Your task to perform on an android device: create a new album in the google photos Image 0: 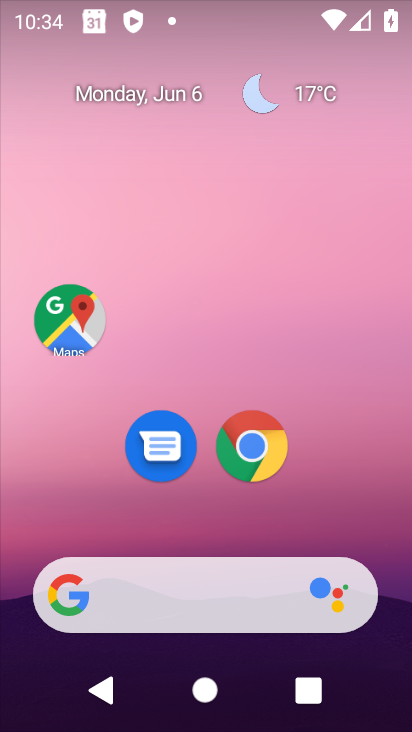
Step 0: drag from (353, 514) to (230, 6)
Your task to perform on an android device: create a new album in the google photos Image 1: 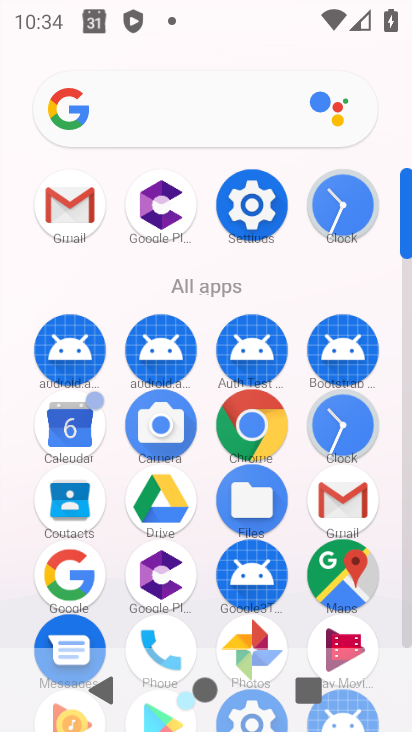
Step 1: drag from (10, 554) to (19, 201)
Your task to perform on an android device: create a new album in the google photos Image 2: 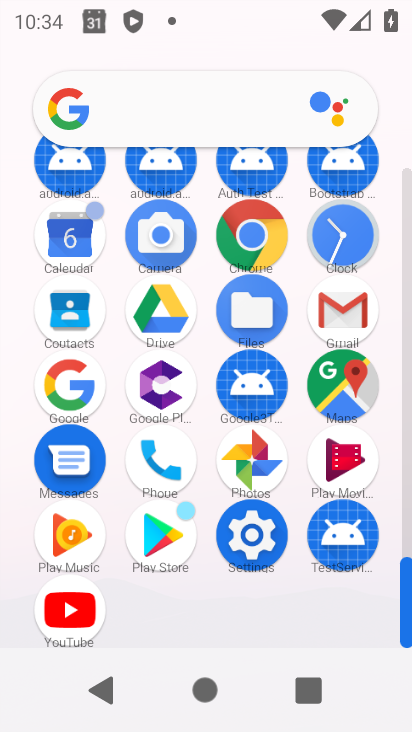
Step 2: click (245, 454)
Your task to perform on an android device: create a new album in the google photos Image 3: 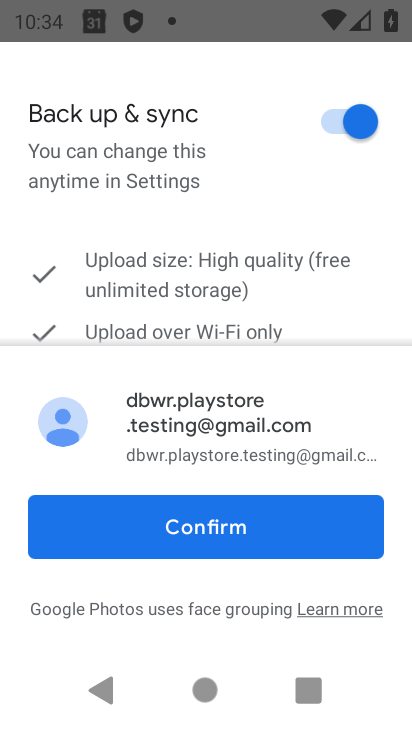
Step 3: click (219, 525)
Your task to perform on an android device: create a new album in the google photos Image 4: 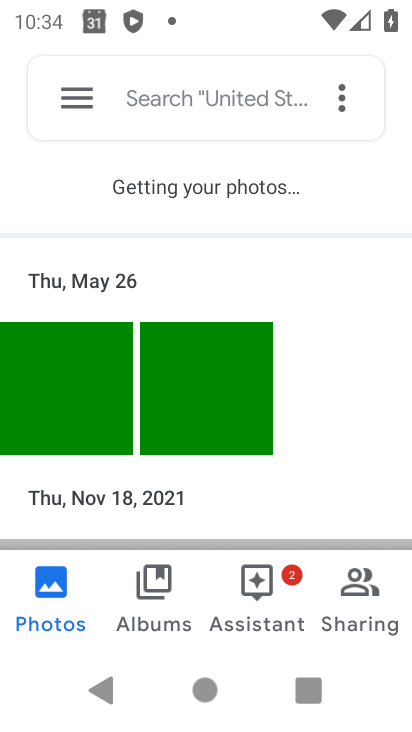
Step 4: drag from (314, 485) to (335, 188)
Your task to perform on an android device: create a new album in the google photos Image 5: 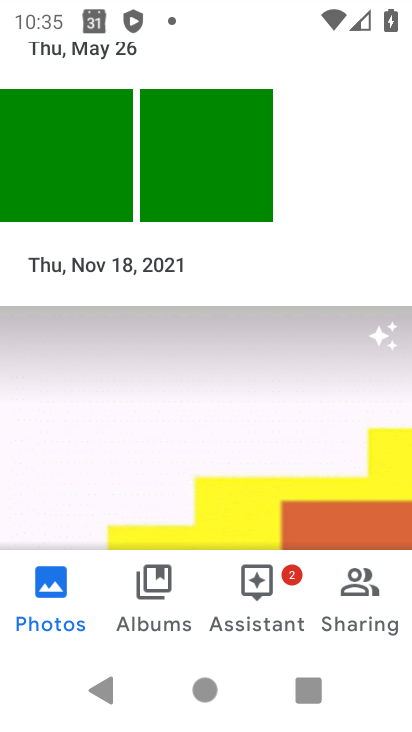
Step 5: click (204, 418)
Your task to perform on an android device: create a new album in the google photos Image 6: 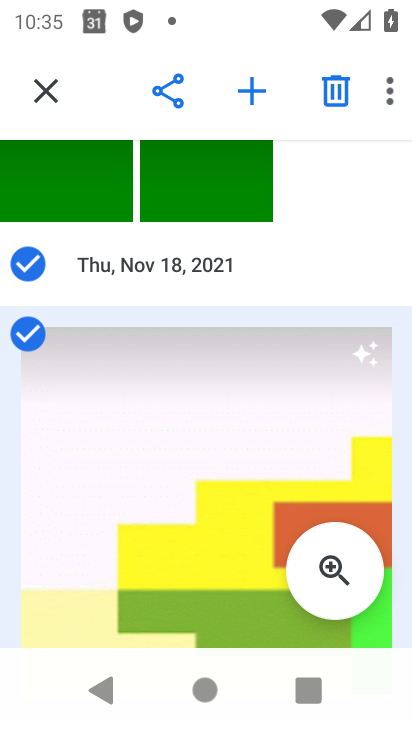
Step 6: click (256, 76)
Your task to perform on an android device: create a new album in the google photos Image 7: 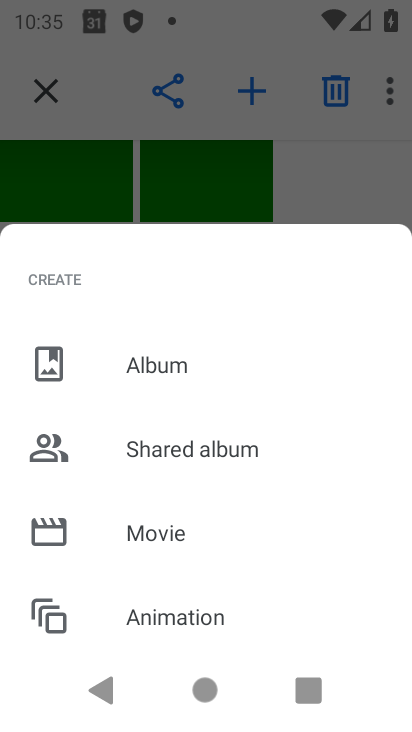
Step 7: click (164, 380)
Your task to perform on an android device: create a new album in the google photos Image 8: 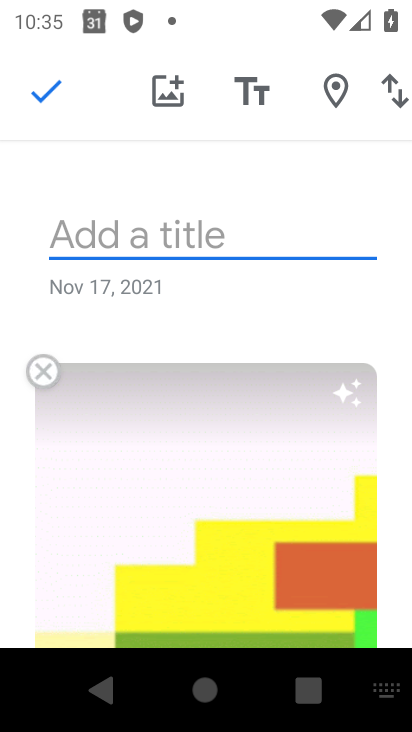
Step 8: type "Xcvbnm"
Your task to perform on an android device: create a new album in the google photos Image 9: 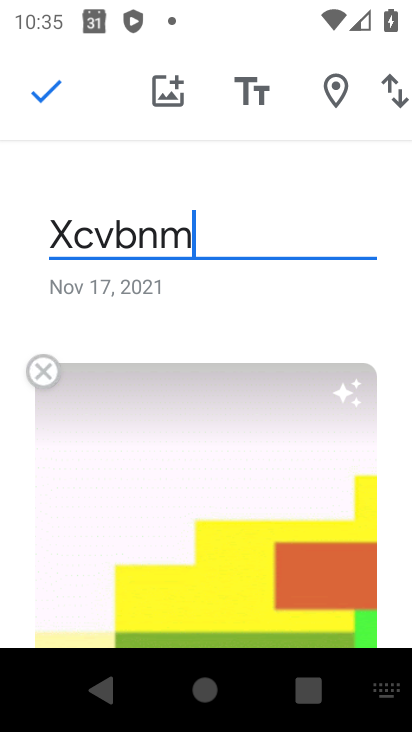
Step 9: type ""
Your task to perform on an android device: create a new album in the google photos Image 10: 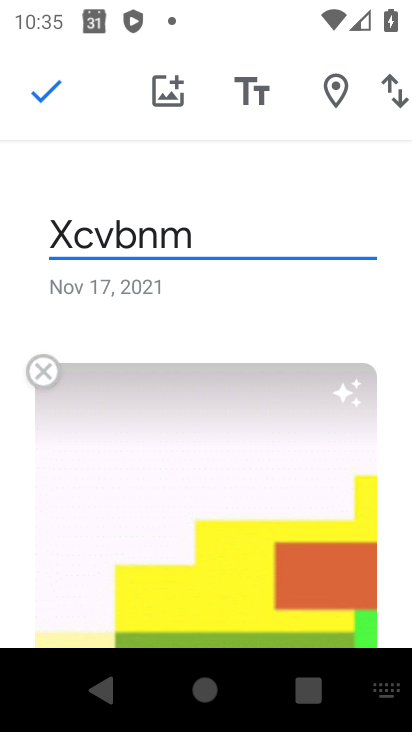
Step 10: click (41, 83)
Your task to perform on an android device: create a new album in the google photos Image 11: 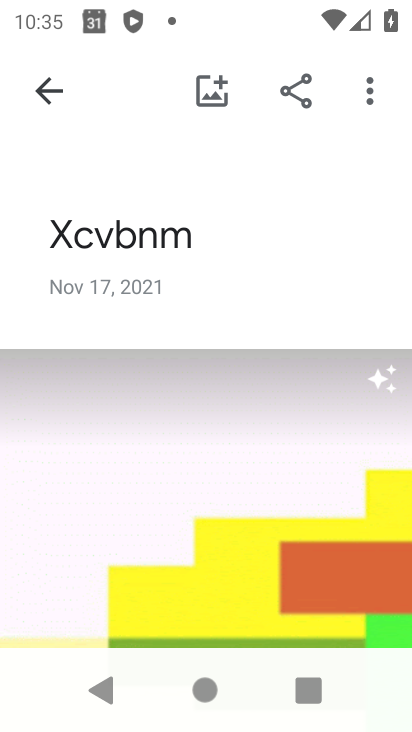
Step 11: task complete